Your task to perform on an android device: find snoozed emails in the gmail app Image 0: 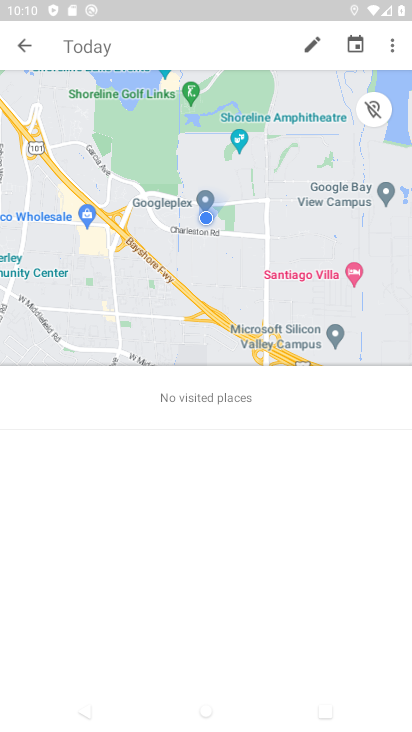
Step 0: press home button
Your task to perform on an android device: find snoozed emails in the gmail app Image 1: 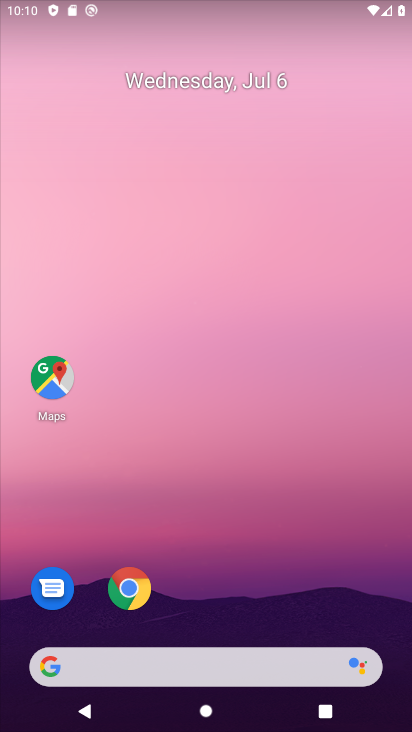
Step 1: drag from (165, 666) to (269, 185)
Your task to perform on an android device: find snoozed emails in the gmail app Image 2: 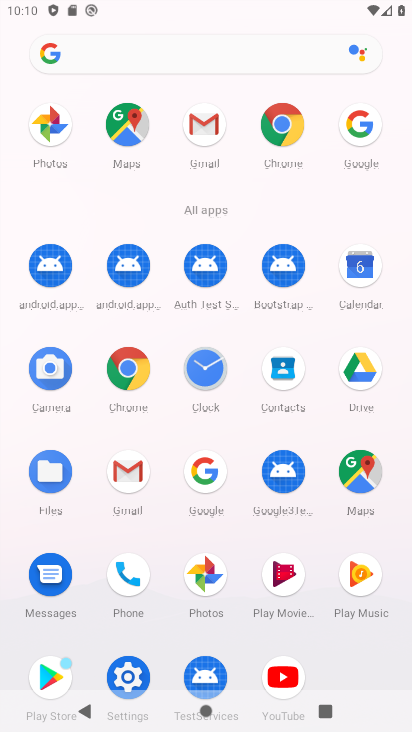
Step 2: click (203, 129)
Your task to perform on an android device: find snoozed emails in the gmail app Image 3: 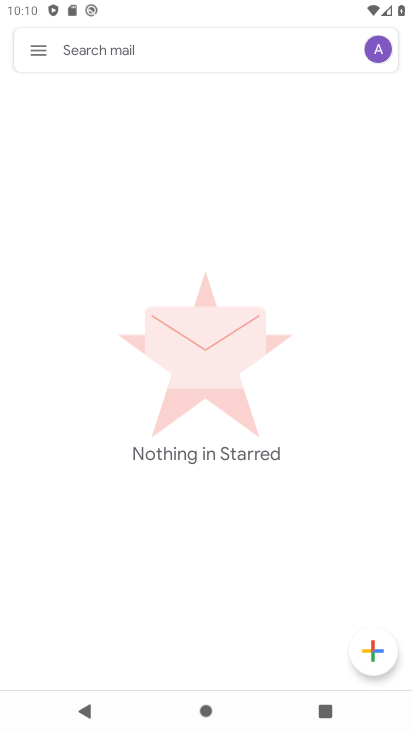
Step 3: click (42, 55)
Your task to perform on an android device: find snoozed emails in the gmail app Image 4: 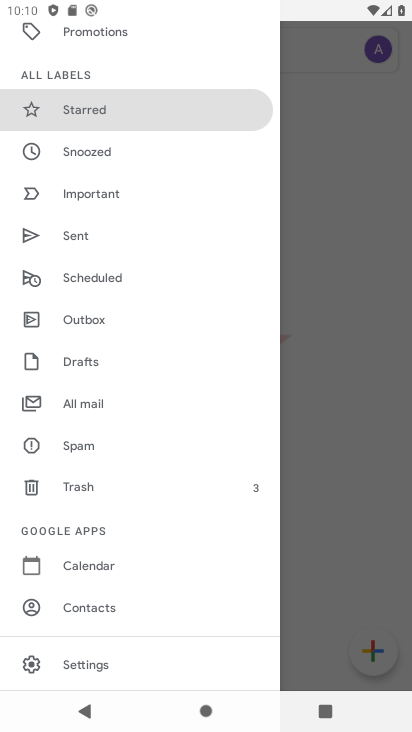
Step 4: click (96, 149)
Your task to perform on an android device: find snoozed emails in the gmail app Image 5: 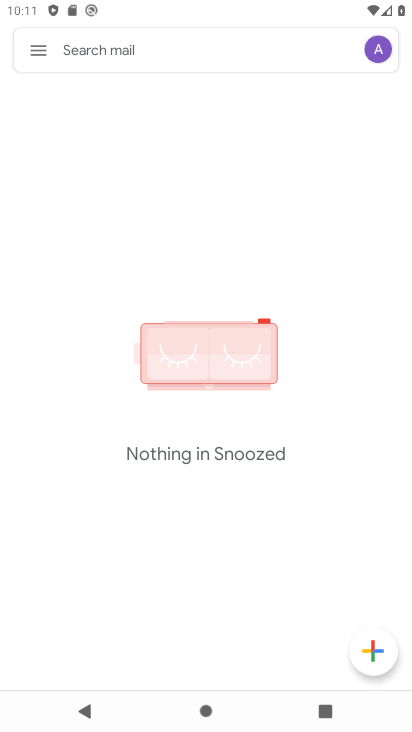
Step 5: task complete